Your task to perform on an android device: Open Google Chrome Image 0: 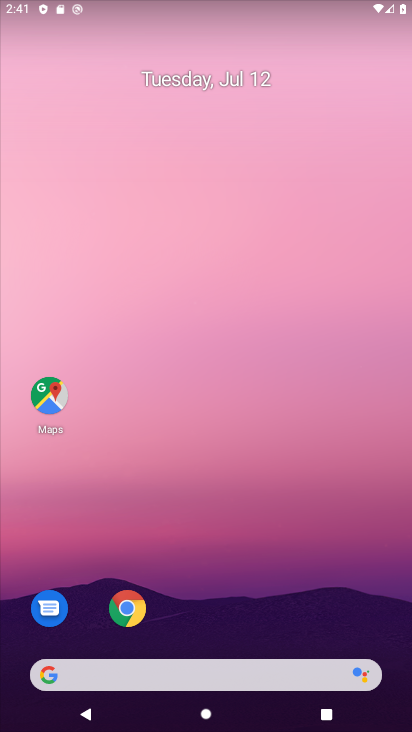
Step 0: click (134, 603)
Your task to perform on an android device: Open Google Chrome Image 1: 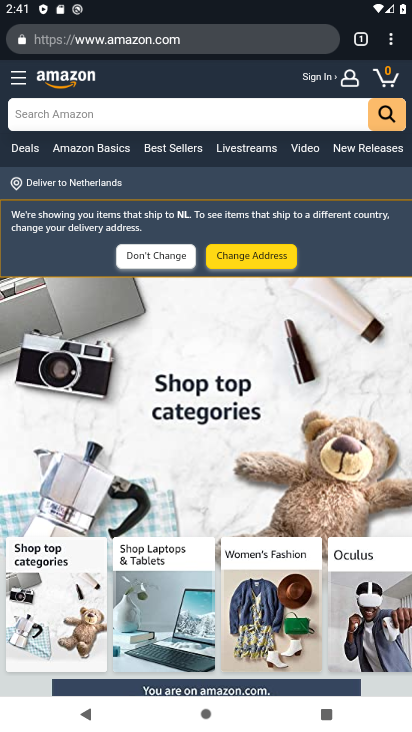
Step 1: task complete